Your task to perform on an android device: Open privacy settings Image 0: 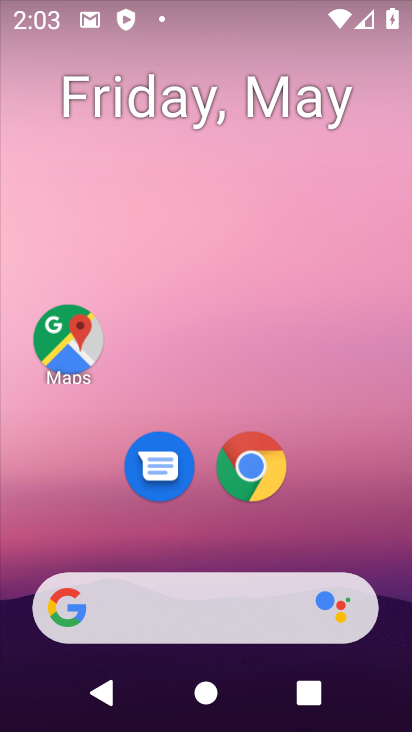
Step 0: drag from (118, 523) to (238, 53)
Your task to perform on an android device: Open privacy settings Image 1: 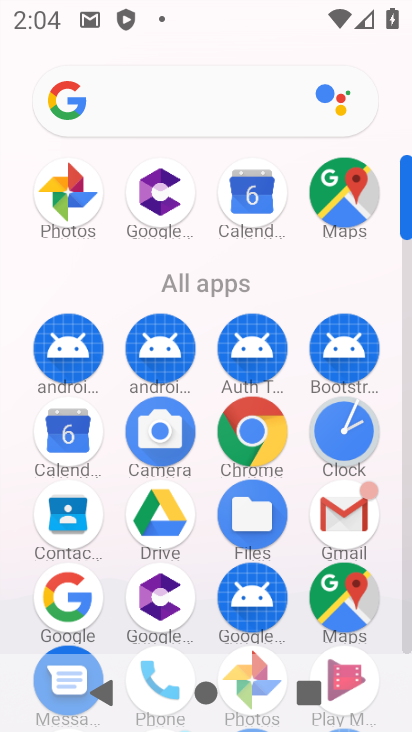
Step 1: drag from (129, 577) to (277, 59)
Your task to perform on an android device: Open privacy settings Image 2: 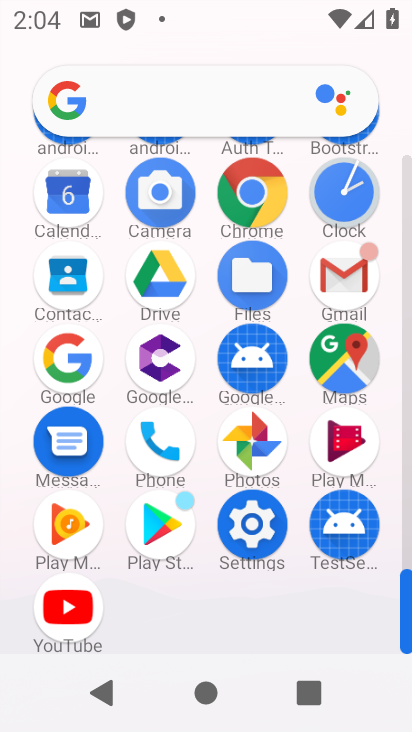
Step 2: click (246, 526)
Your task to perform on an android device: Open privacy settings Image 3: 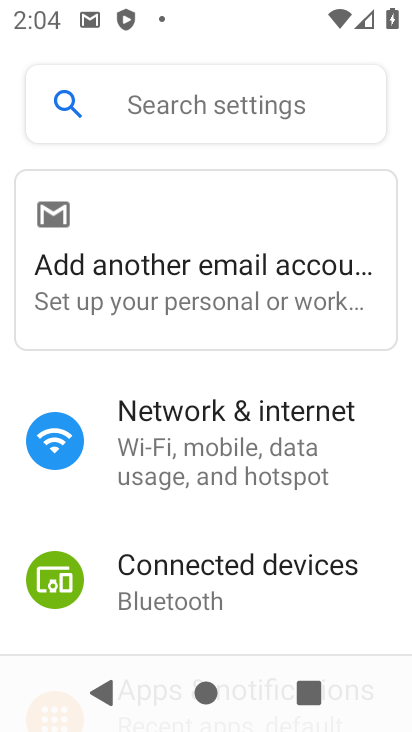
Step 3: drag from (191, 594) to (241, 118)
Your task to perform on an android device: Open privacy settings Image 4: 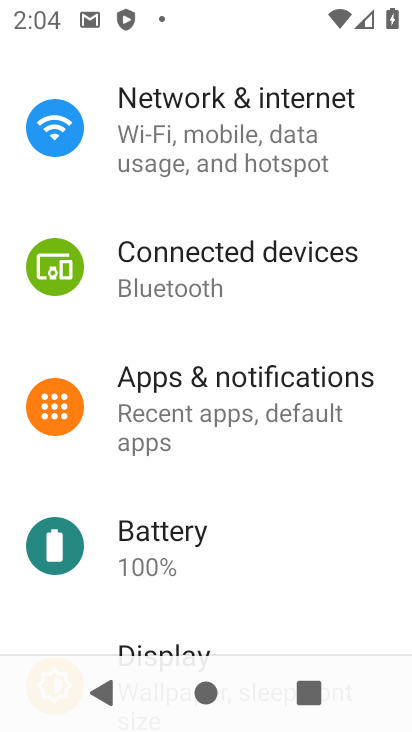
Step 4: drag from (167, 584) to (250, 92)
Your task to perform on an android device: Open privacy settings Image 5: 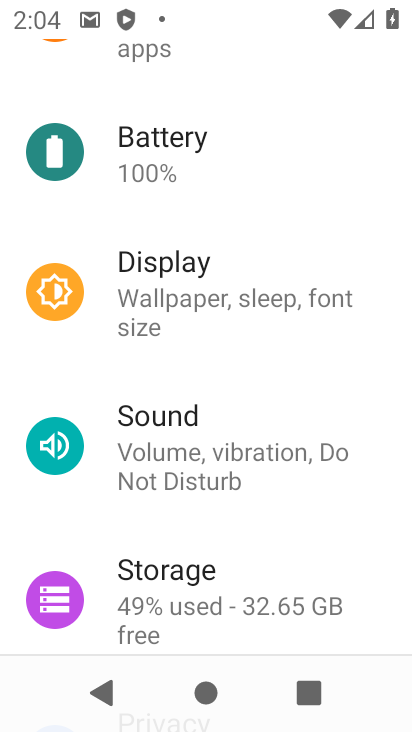
Step 5: drag from (214, 596) to (265, 117)
Your task to perform on an android device: Open privacy settings Image 6: 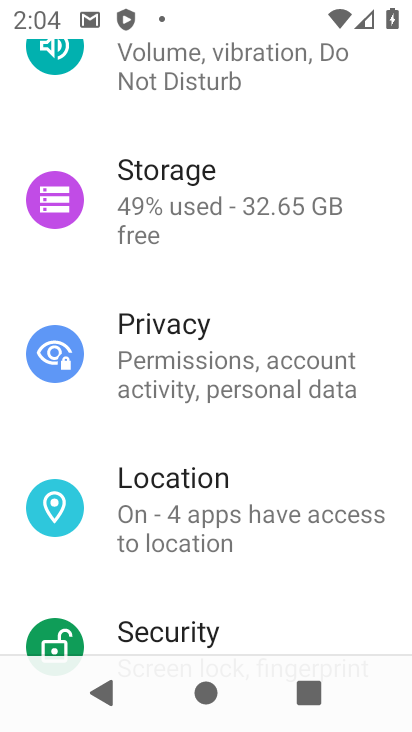
Step 6: click (198, 374)
Your task to perform on an android device: Open privacy settings Image 7: 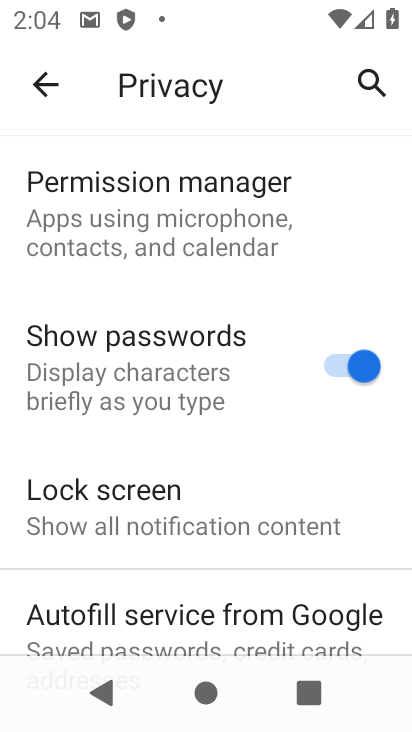
Step 7: task complete